Your task to perform on an android device: Go to sound settings Image 0: 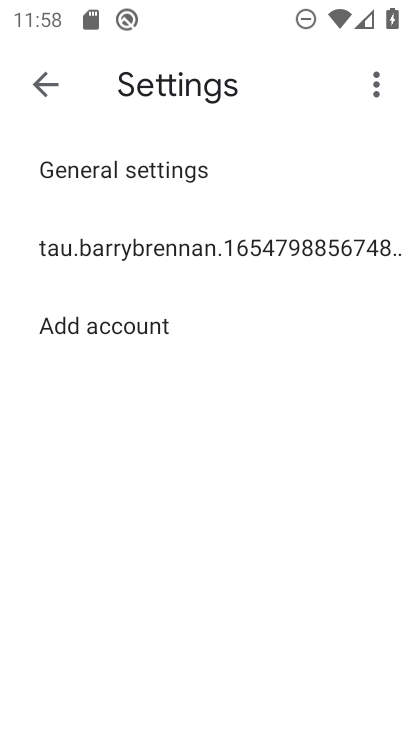
Step 0: press home button
Your task to perform on an android device: Go to sound settings Image 1: 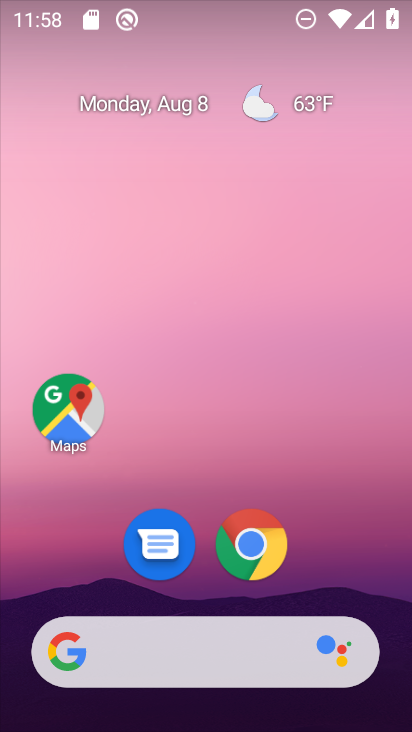
Step 1: drag from (195, 644) to (184, 157)
Your task to perform on an android device: Go to sound settings Image 2: 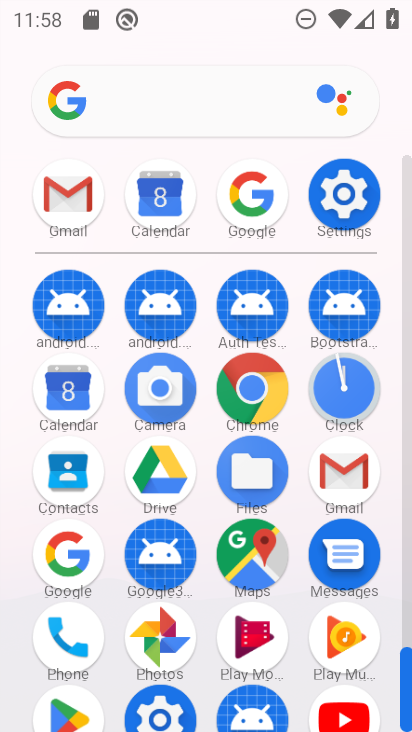
Step 2: click (345, 190)
Your task to perform on an android device: Go to sound settings Image 3: 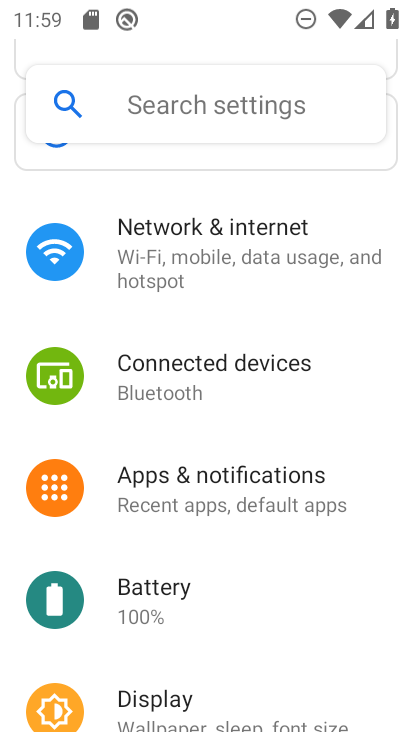
Step 3: drag from (205, 593) to (265, 475)
Your task to perform on an android device: Go to sound settings Image 4: 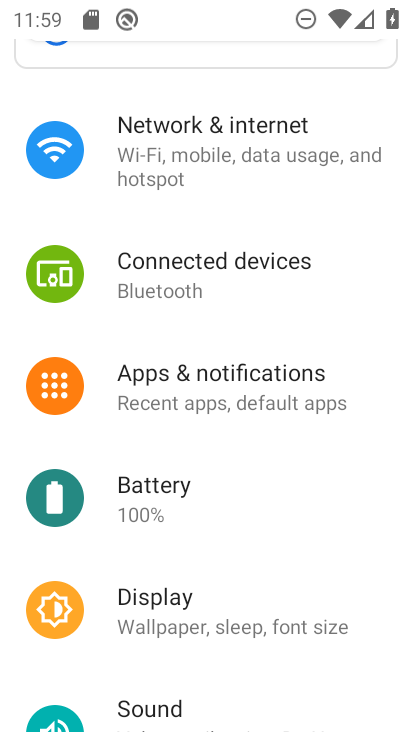
Step 4: drag from (208, 664) to (279, 533)
Your task to perform on an android device: Go to sound settings Image 5: 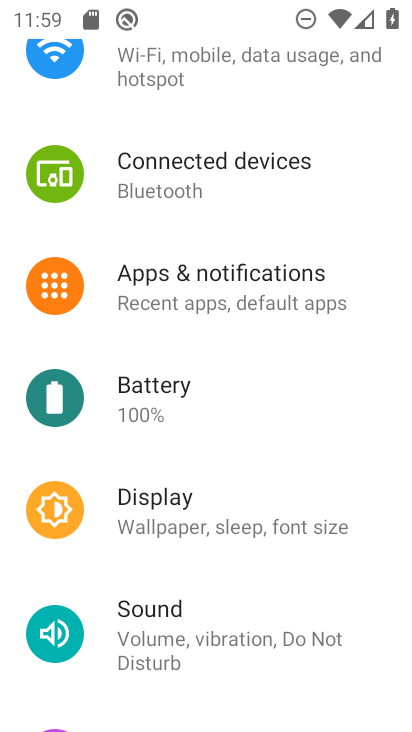
Step 5: click (194, 637)
Your task to perform on an android device: Go to sound settings Image 6: 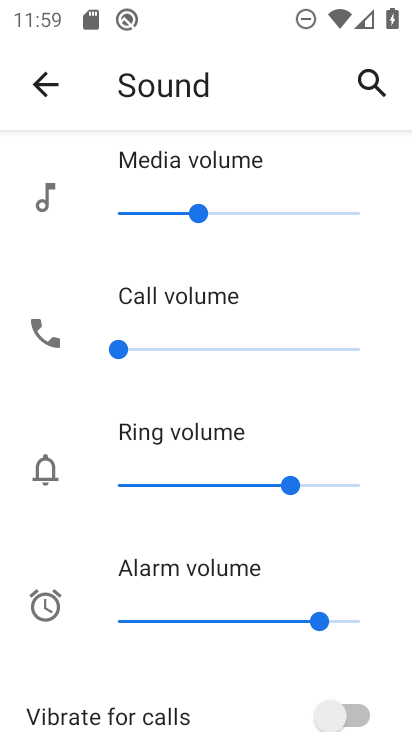
Step 6: task complete